Your task to perform on an android device: Go to CNN.com Image 0: 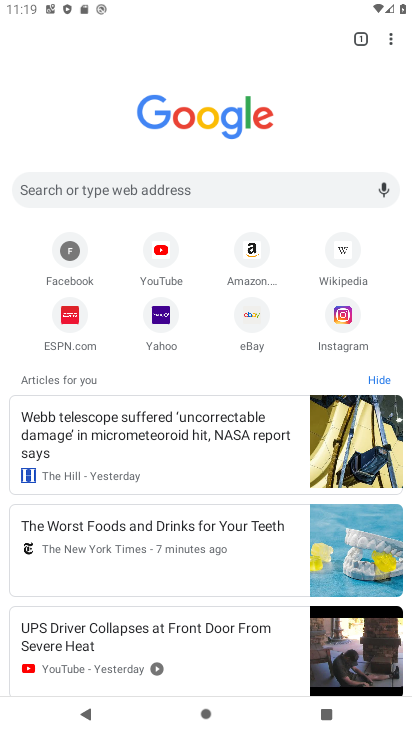
Step 0: click (180, 193)
Your task to perform on an android device: Go to CNN.com Image 1: 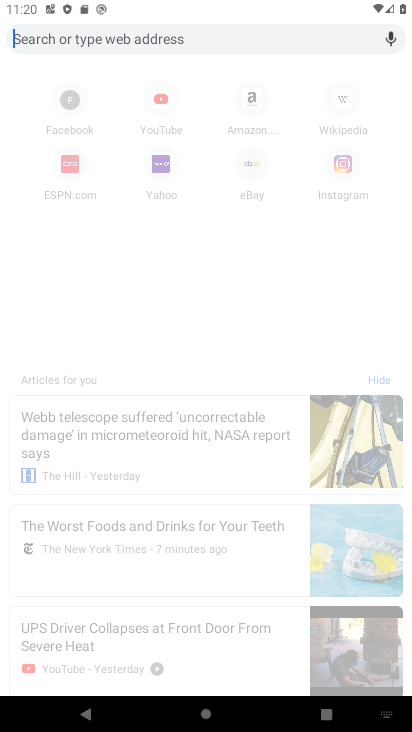
Step 1: type "CNN.com"
Your task to perform on an android device: Go to CNN.com Image 2: 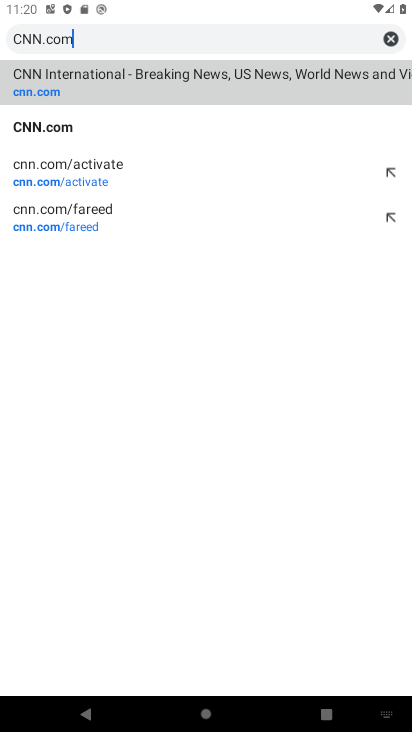
Step 2: press enter
Your task to perform on an android device: Go to CNN.com Image 3: 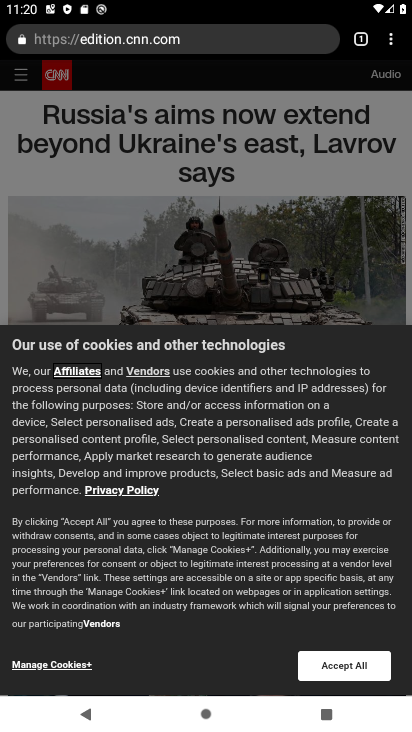
Step 3: task complete